Your task to perform on an android device: change the clock style Image 0: 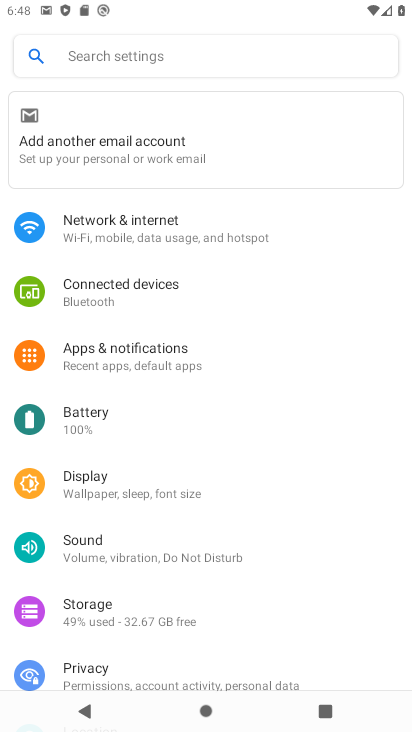
Step 0: press home button
Your task to perform on an android device: change the clock style Image 1: 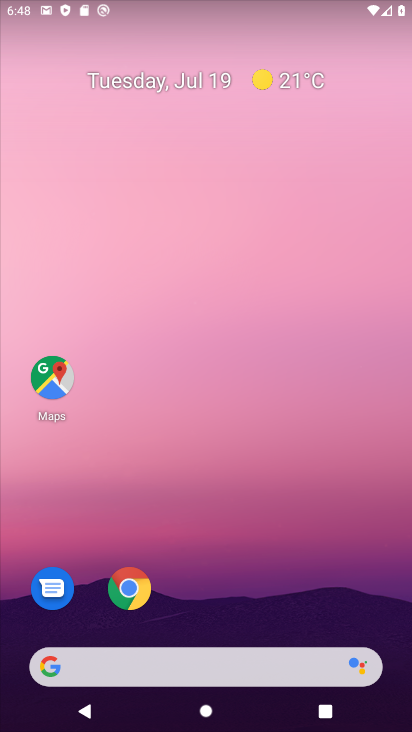
Step 1: drag from (219, 590) to (235, 163)
Your task to perform on an android device: change the clock style Image 2: 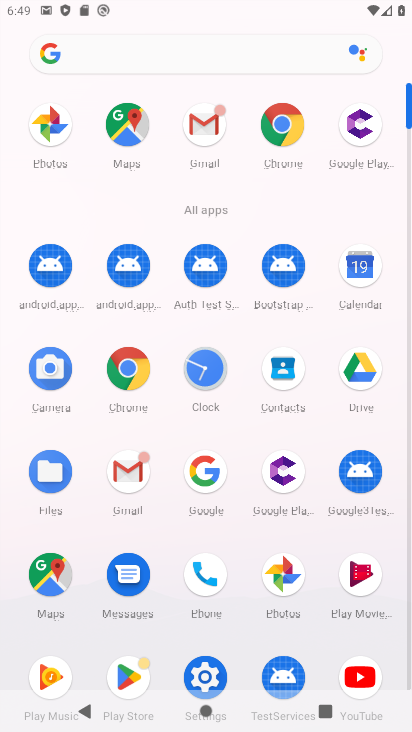
Step 2: click (207, 386)
Your task to perform on an android device: change the clock style Image 3: 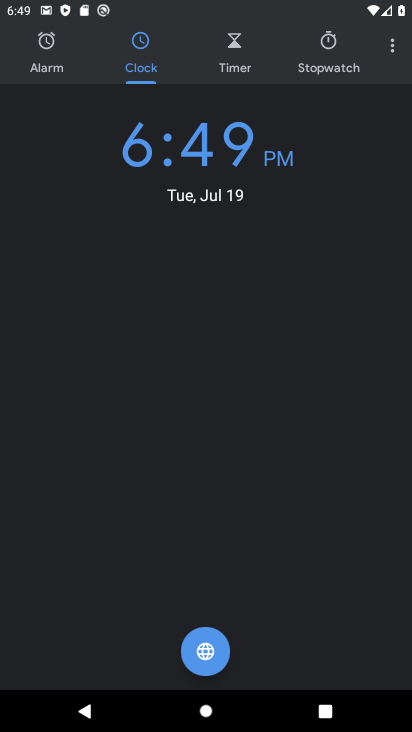
Step 3: click (396, 57)
Your task to perform on an android device: change the clock style Image 4: 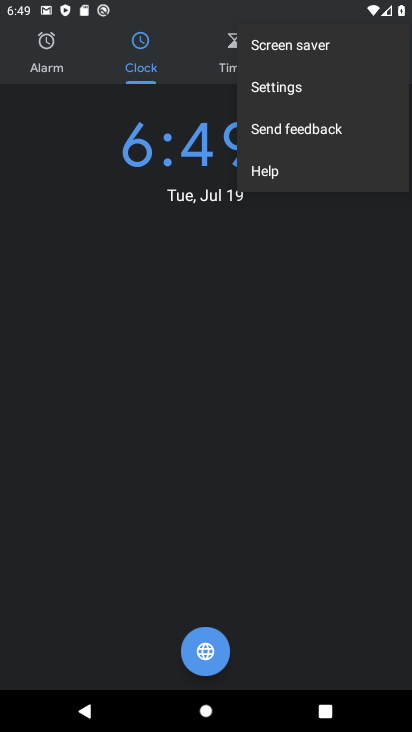
Step 4: click (326, 90)
Your task to perform on an android device: change the clock style Image 5: 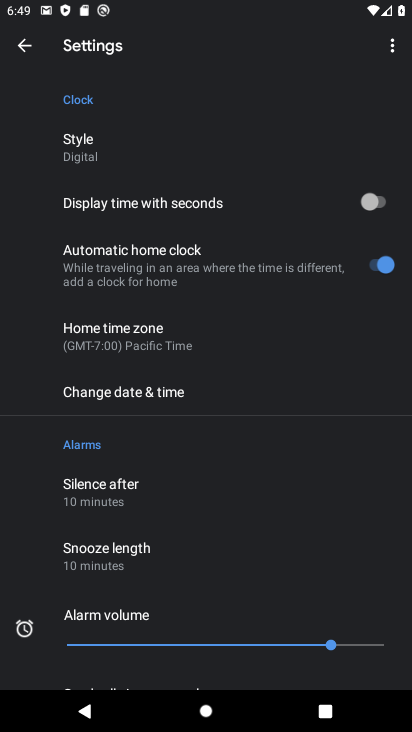
Step 5: click (206, 162)
Your task to perform on an android device: change the clock style Image 6: 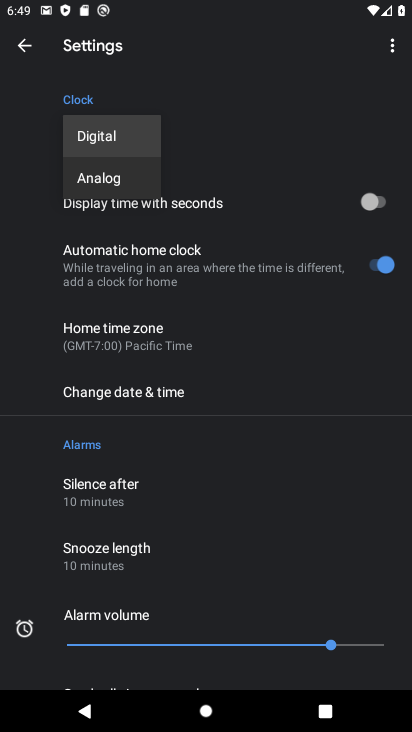
Step 6: click (115, 183)
Your task to perform on an android device: change the clock style Image 7: 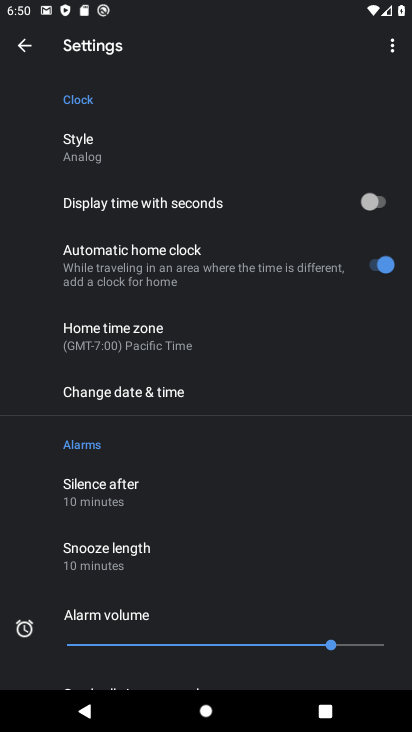
Step 7: task complete